Your task to perform on an android device: Go to wifi settings Image 0: 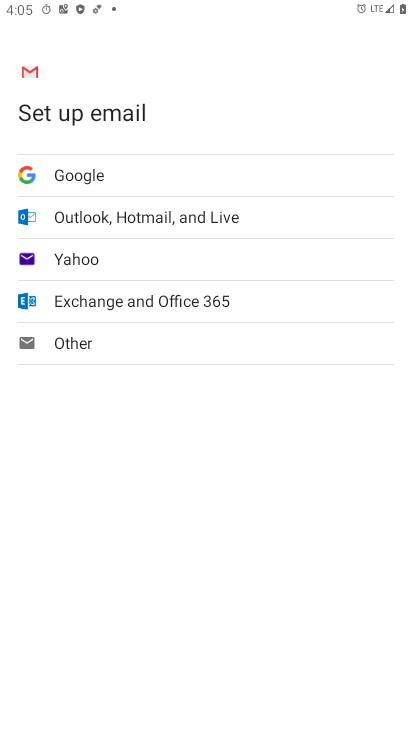
Step 0: press home button
Your task to perform on an android device: Go to wifi settings Image 1: 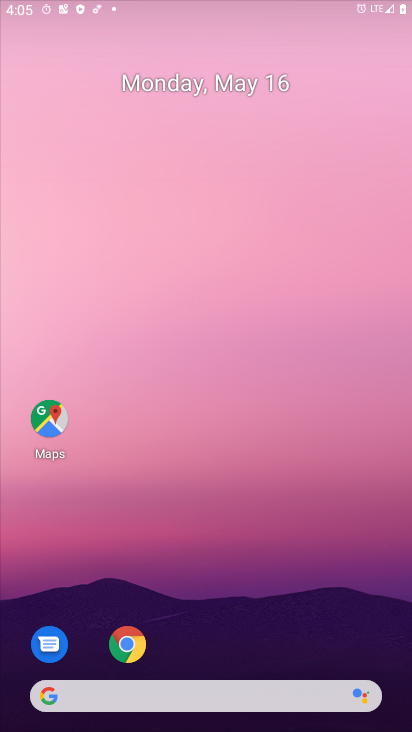
Step 1: drag from (226, 559) to (178, 13)
Your task to perform on an android device: Go to wifi settings Image 2: 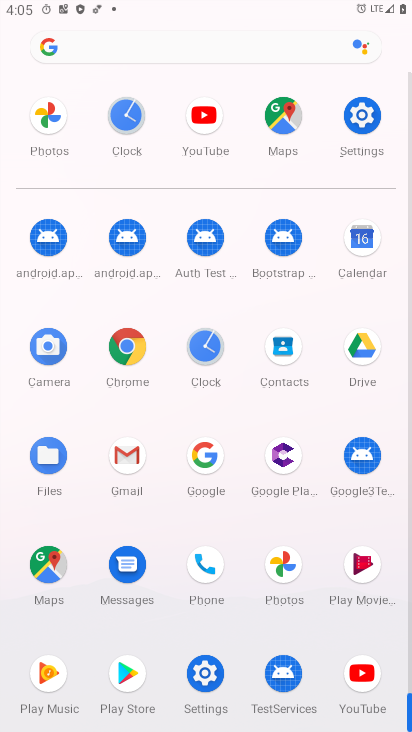
Step 2: click (347, 150)
Your task to perform on an android device: Go to wifi settings Image 3: 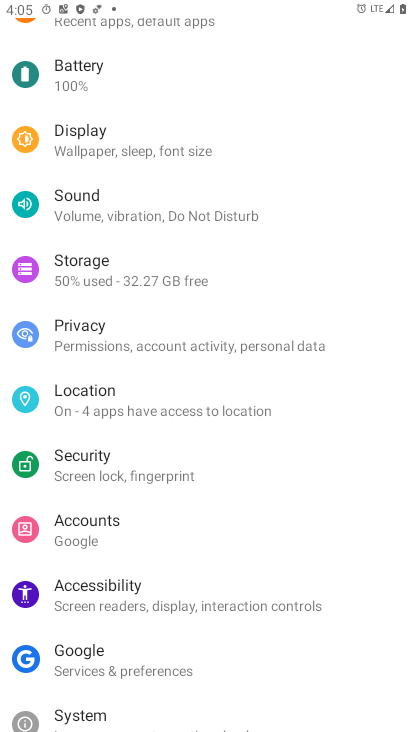
Step 3: drag from (167, 204) to (146, 627)
Your task to perform on an android device: Go to wifi settings Image 4: 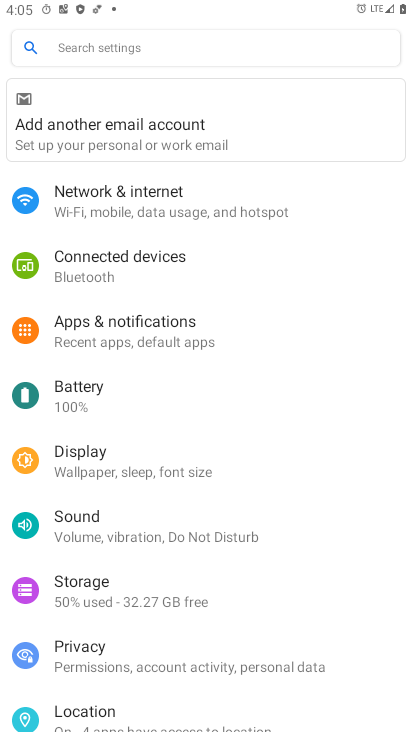
Step 4: click (190, 205)
Your task to perform on an android device: Go to wifi settings Image 5: 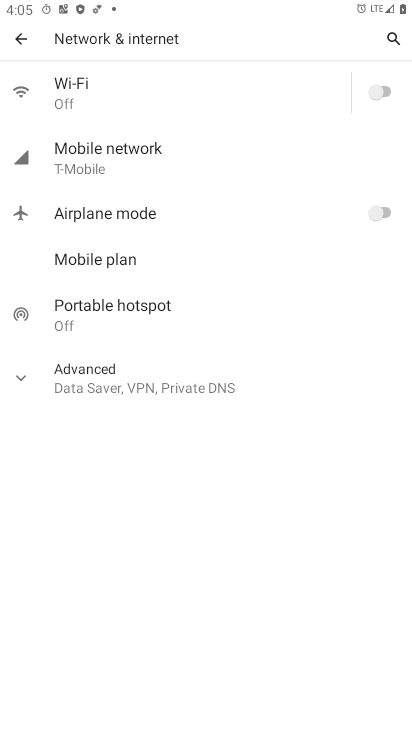
Step 5: click (202, 99)
Your task to perform on an android device: Go to wifi settings Image 6: 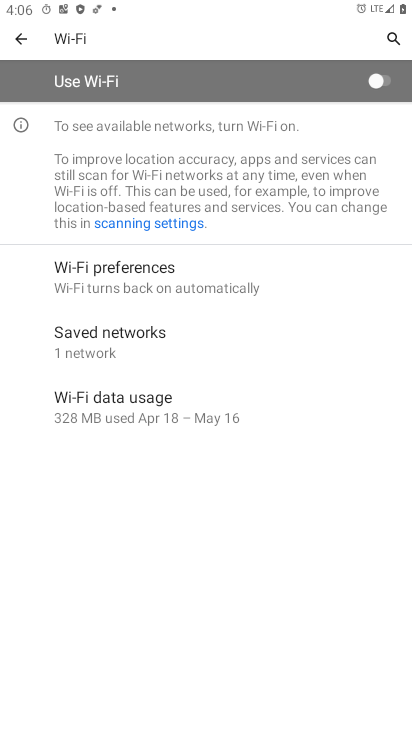
Step 6: task complete